Your task to perform on an android device: Open display settings Image 0: 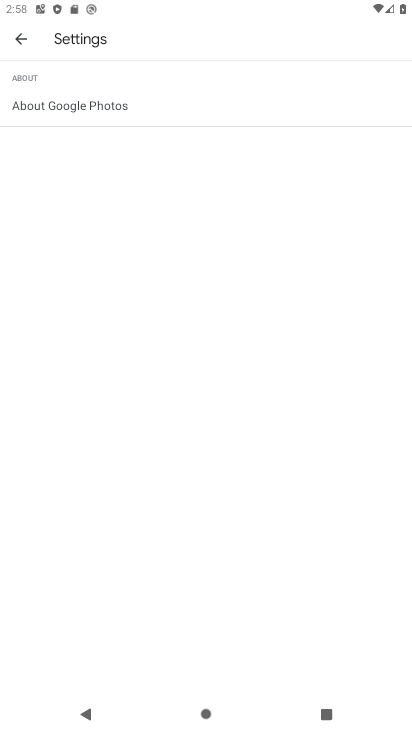
Step 0: press home button
Your task to perform on an android device: Open display settings Image 1: 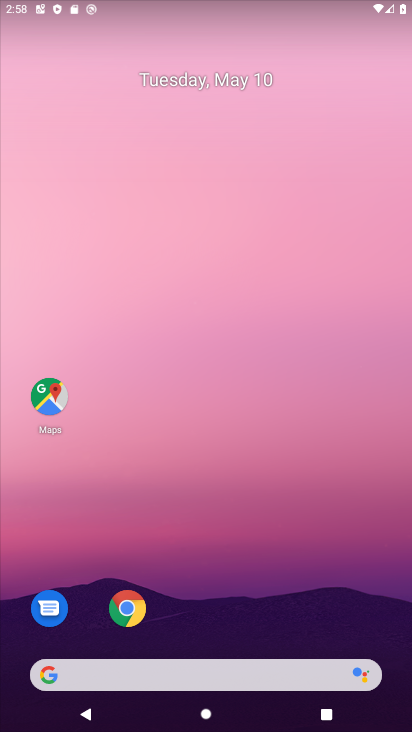
Step 1: drag from (166, 607) to (220, 87)
Your task to perform on an android device: Open display settings Image 2: 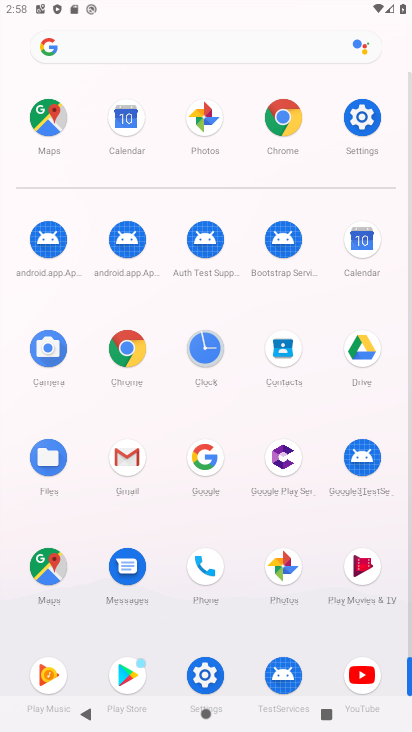
Step 2: click (376, 135)
Your task to perform on an android device: Open display settings Image 3: 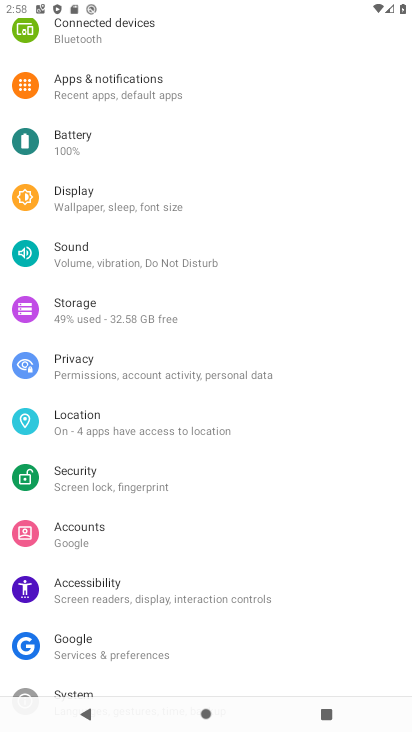
Step 3: click (129, 206)
Your task to perform on an android device: Open display settings Image 4: 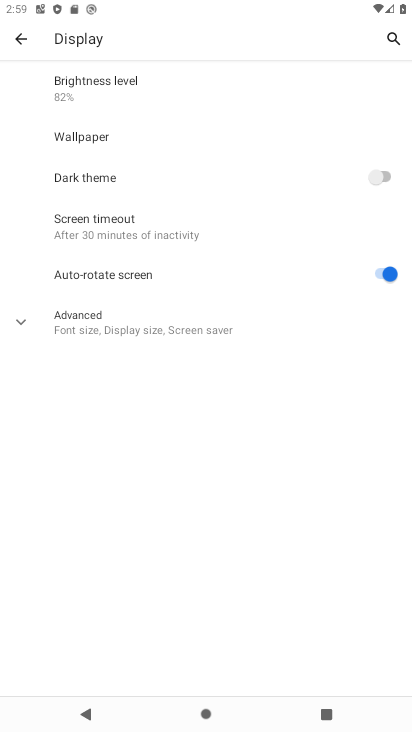
Step 4: task complete